Your task to perform on an android device: turn pop-ups on in chrome Image 0: 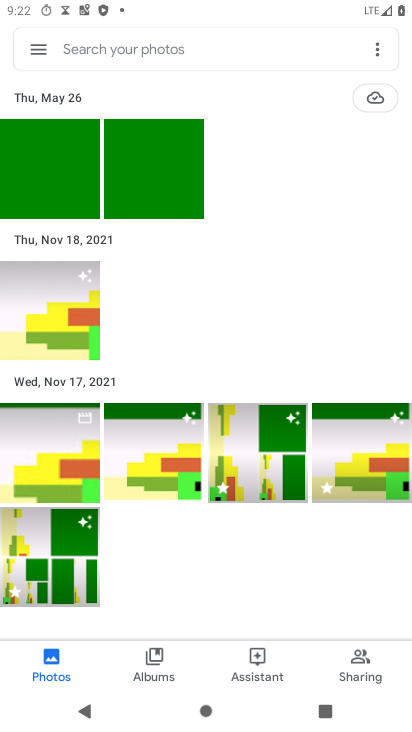
Step 0: press home button
Your task to perform on an android device: turn pop-ups on in chrome Image 1: 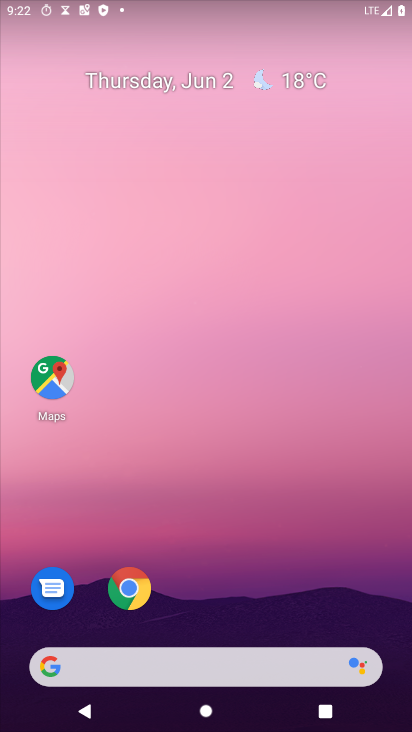
Step 1: click (136, 587)
Your task to perform on an android device: turn pop-ups on in chrome Image 2: 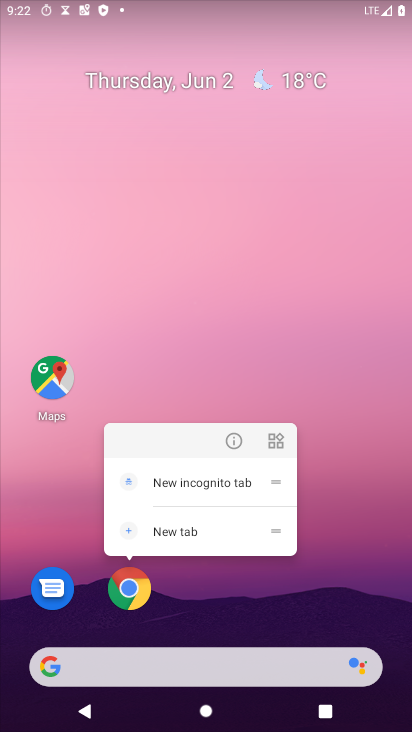
Step 2: click (124, 589)
Your task to perform on an android device: turn pop-ups on in chrome Image 3: 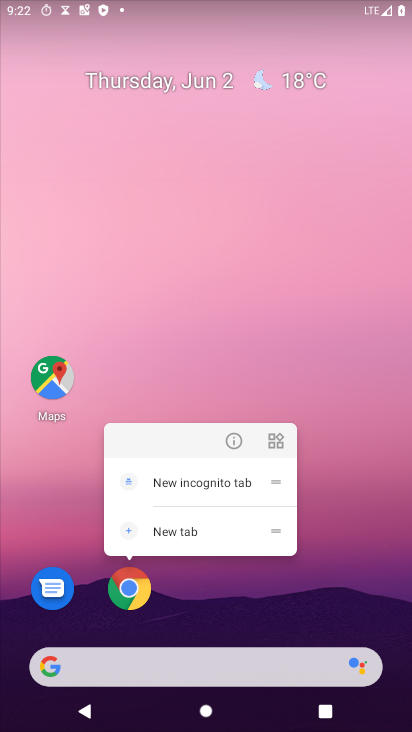
Step 3: click (127, 585)
Your task to perform on an android device: turn pop-ups on in chrome Image 4: 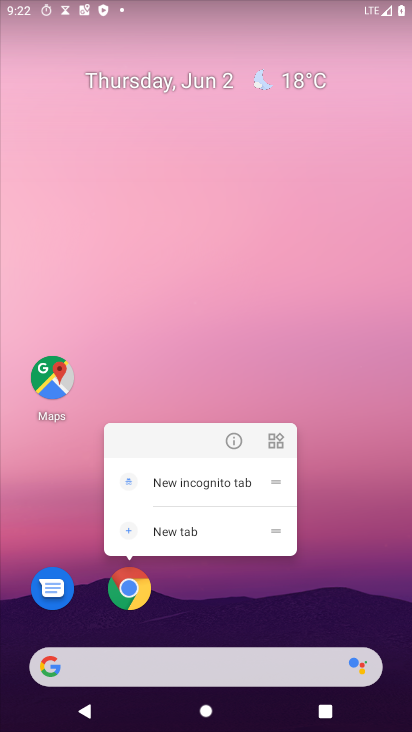
Step 4: click (130, 582)
Your task to perform on an android device: turn pop-ups on in chrome Image 5: 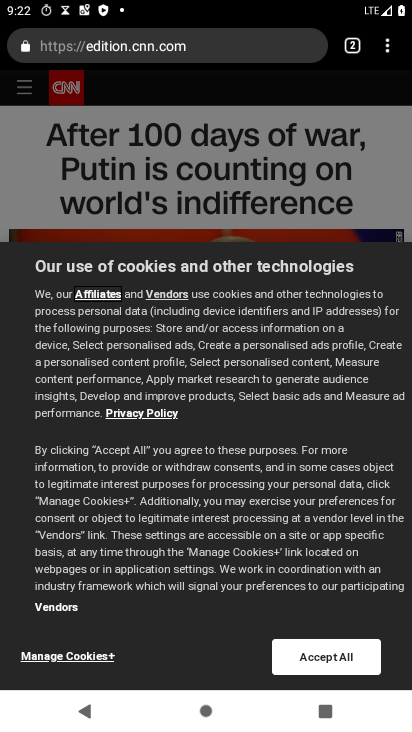
Step 5: drag from (384, 49) to (246, 501)
Your task to perform on an android device: turn pop-ups on in chrome Image 6: 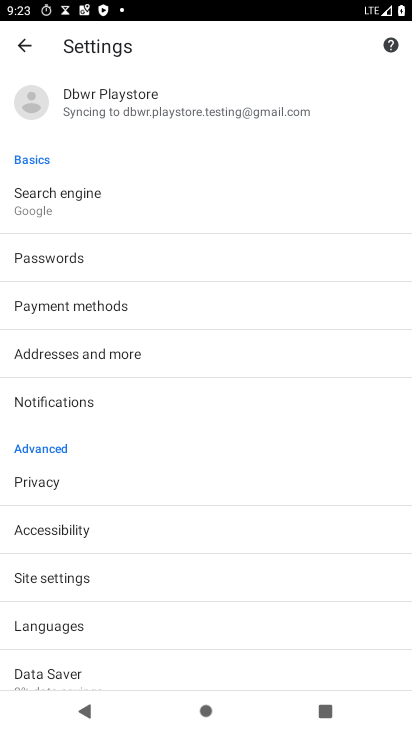
Step 6: click (68, 571)
Your task to perform on an android device: turn pop-ups on in chrome Image 7: 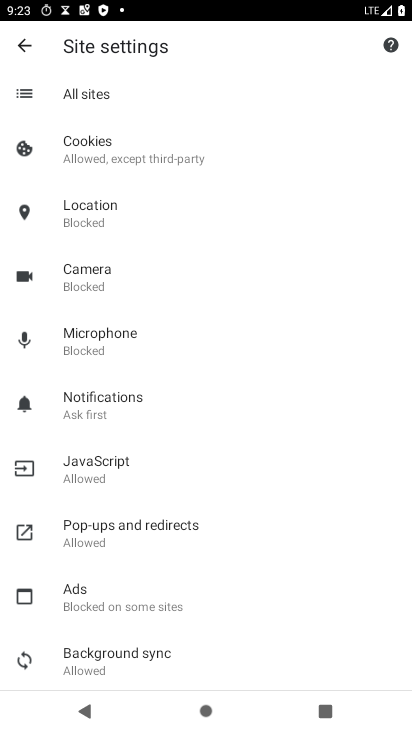
Step 7: click (130, 518)
Your task to perform on an android device: turn pop-ups on in chrome Image 8: 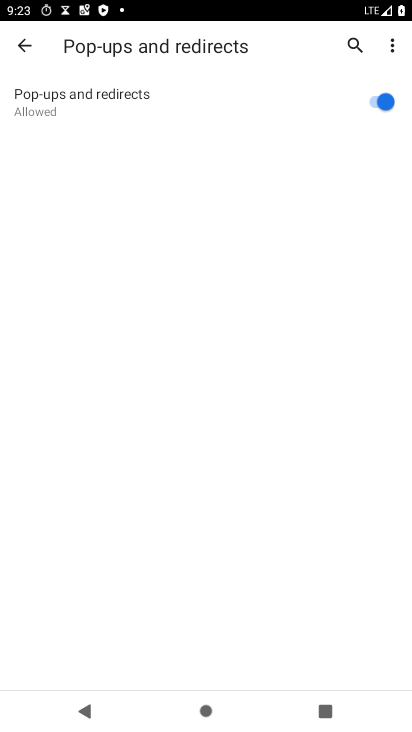
Step 8: task complete